Your task to perform on an android device: Show me the alarms in the clock app Image 0: 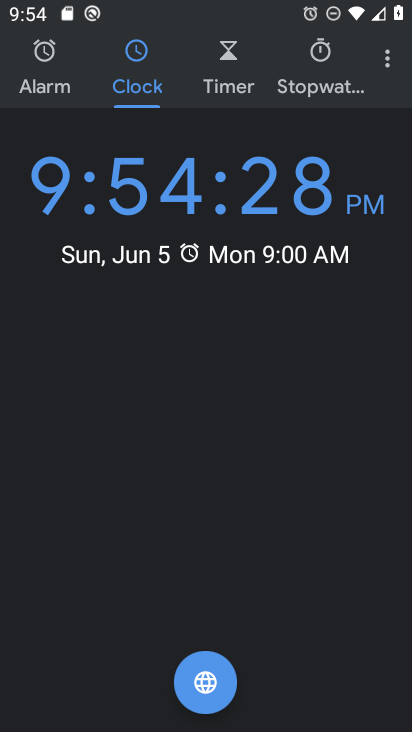
Step 0: click (52, 67)
Your task to perform on an android device: Show me the alarms in the clock app Image 1: 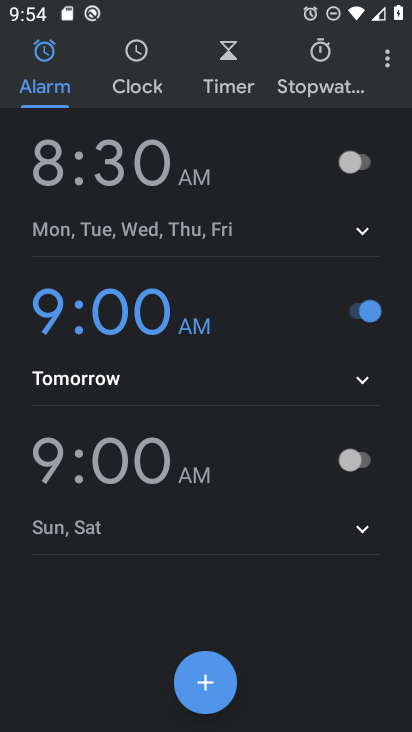
Step 1: task complete